Your task to perform on an android device: install app "Truecaller" Image 0: 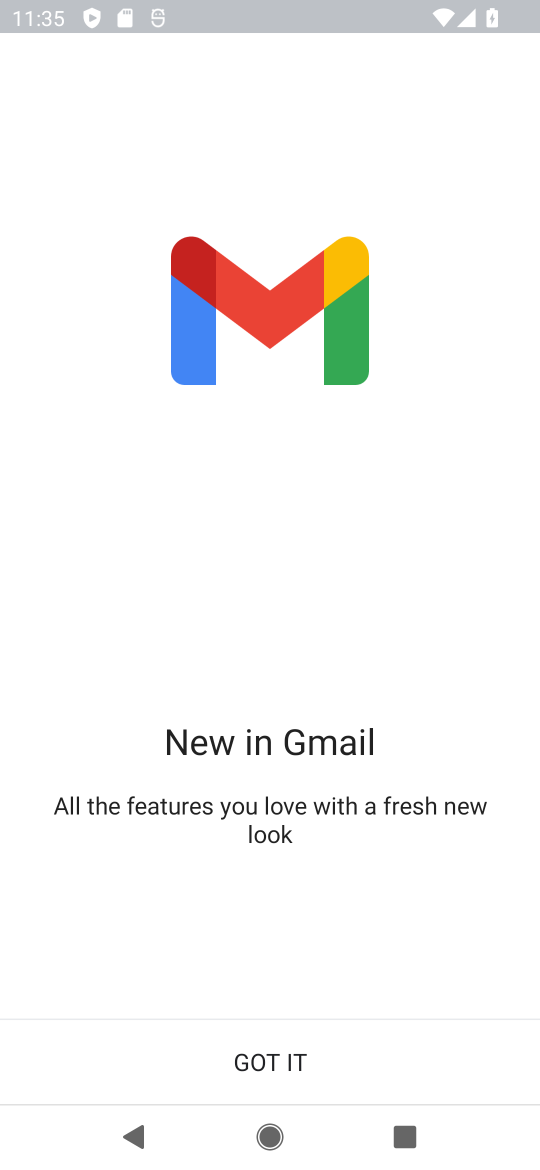
Step 0: click (222, 1069)
Your task to perform on an android device: install app "Truecaller" Image 1: 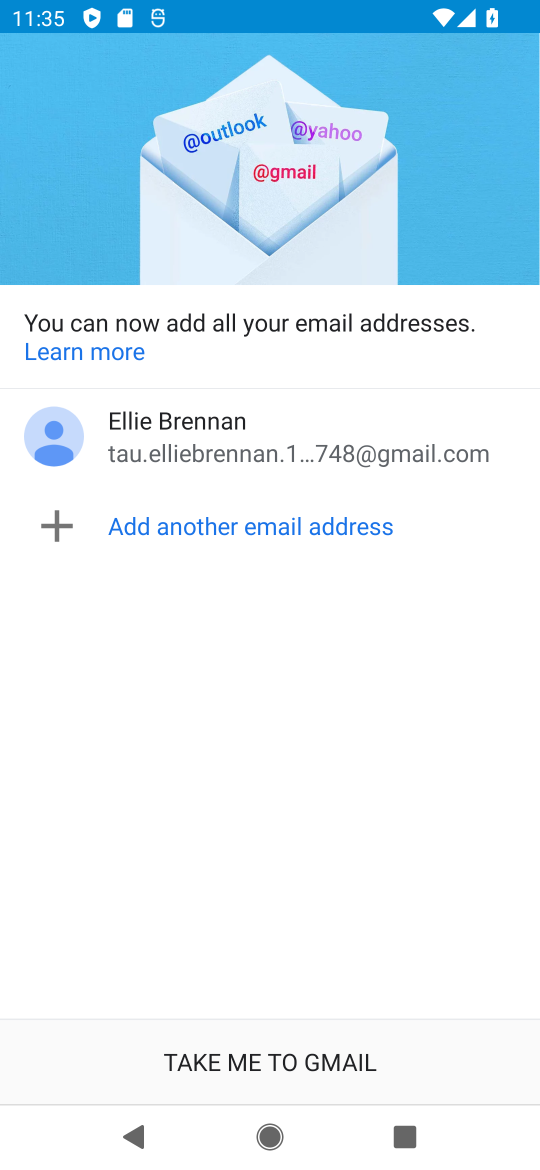
Step 1: press home button
Your task to perform on an android device: install app "Truecaller" Image 2: 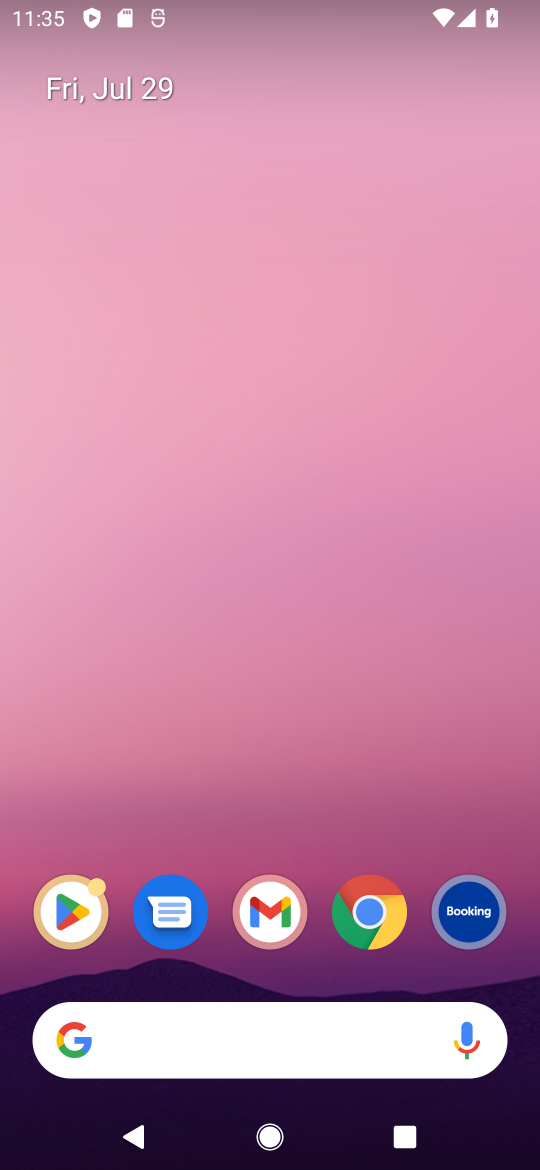
Step 2: click (67, 908)
Your task to perform on an android device: install app "Truecaller" Image 3: 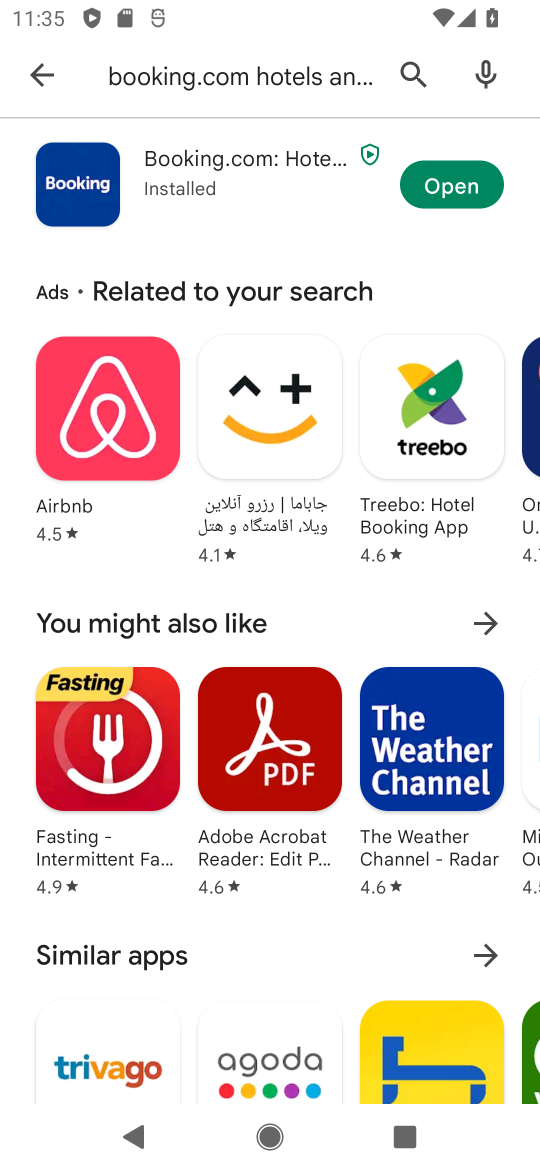
Step 3: click (416, 60)
Your task to perform on an android device: install app "Truecaller" Image 4: 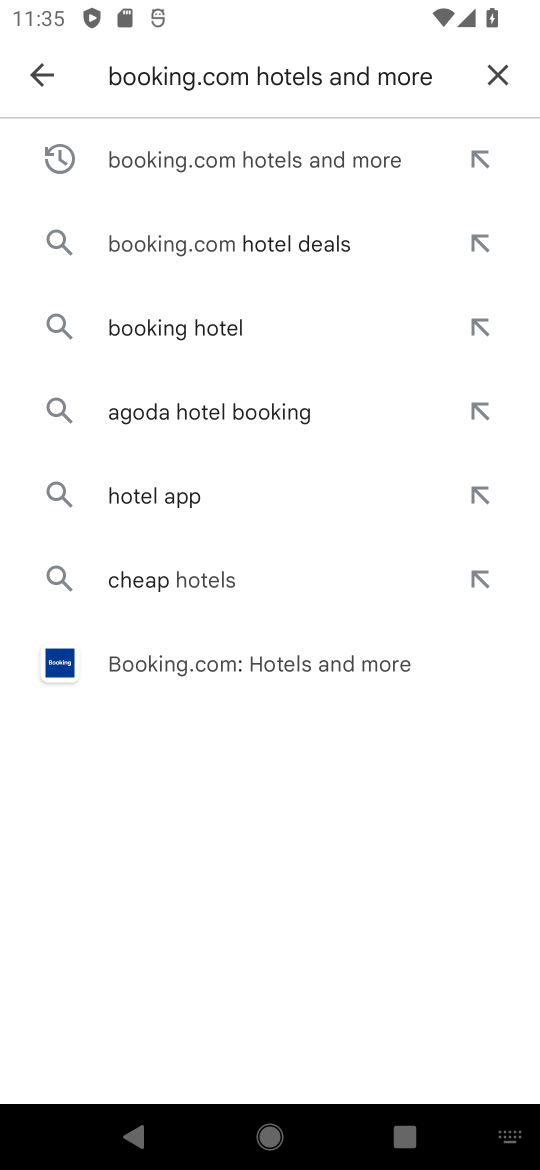
Step 4: click (513, 72)
Your task to perform on an android device: install app "Truecaller" Image 5: 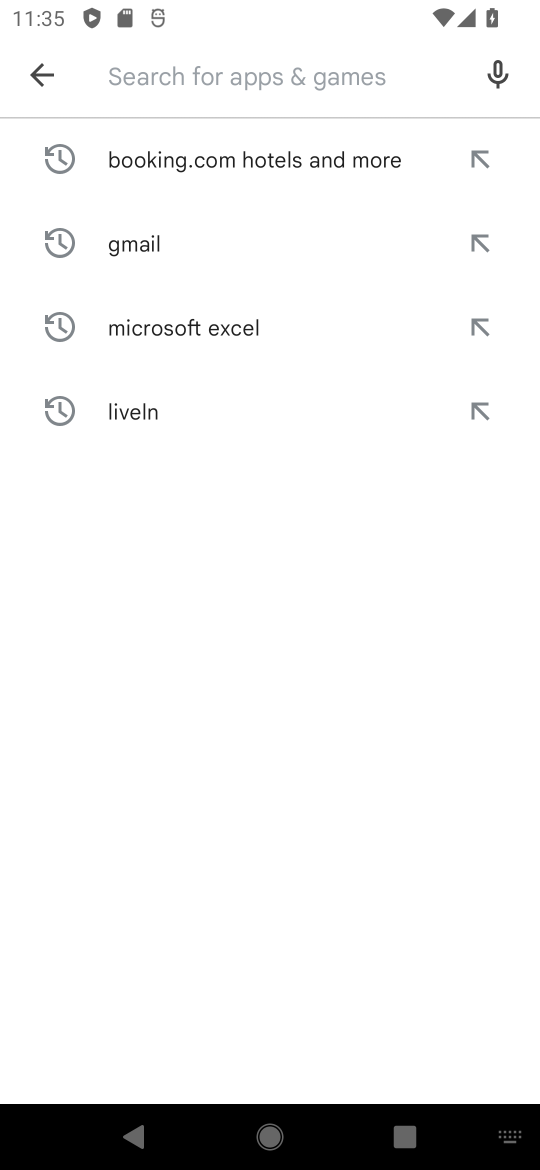
Step 5: click (255, 72)
Your task to perform on an android device: install app "Truecaller" Image 6: 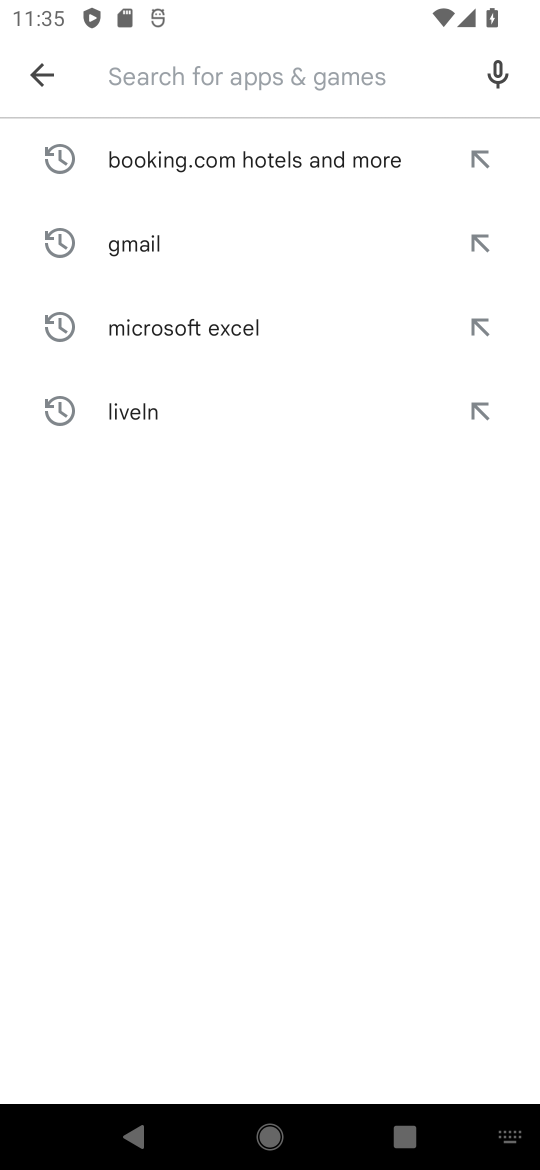
Step 6: type "true"
Your task to perform on an android device: install app "Truecaller" Image 7: 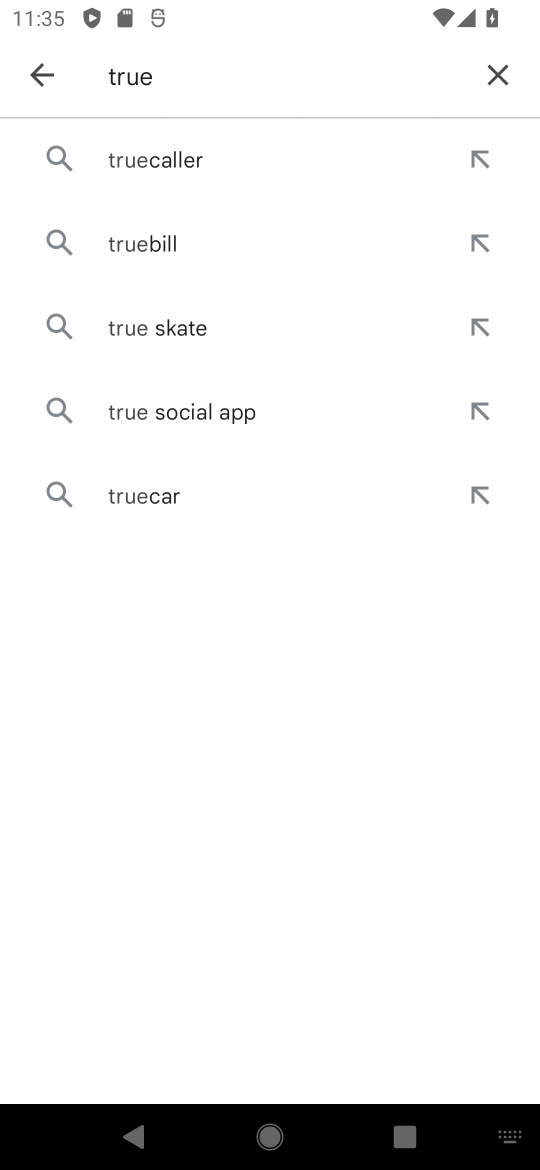
Step 7: click (196, 166)
Your task to perform on an android device: install app "Truecaller" Image 8: 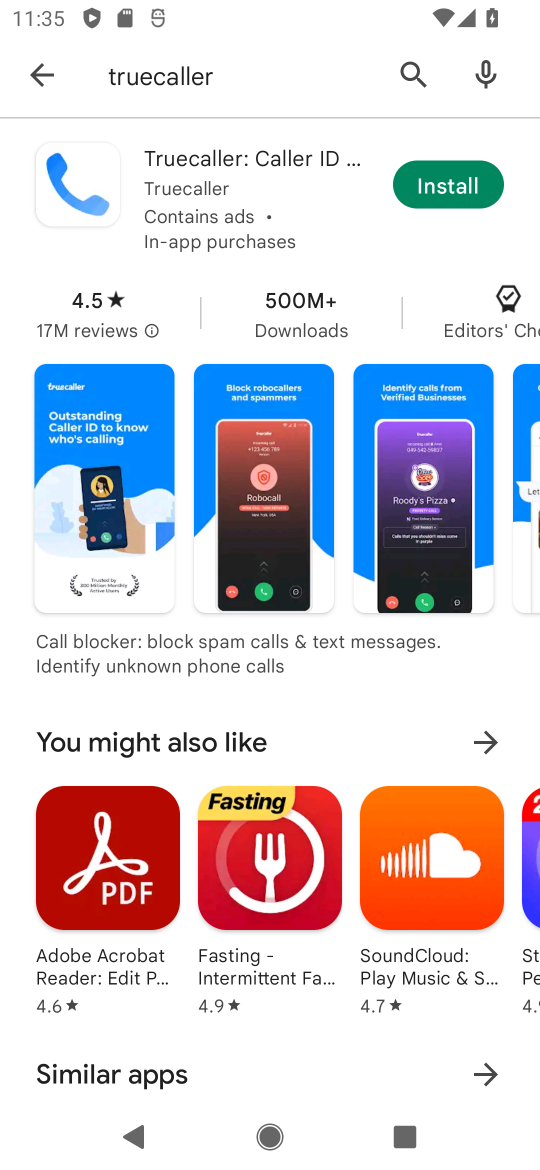
Step 8: click (455, 196)
Your task to perform on an android device: install app "Truecaller" Image 9: 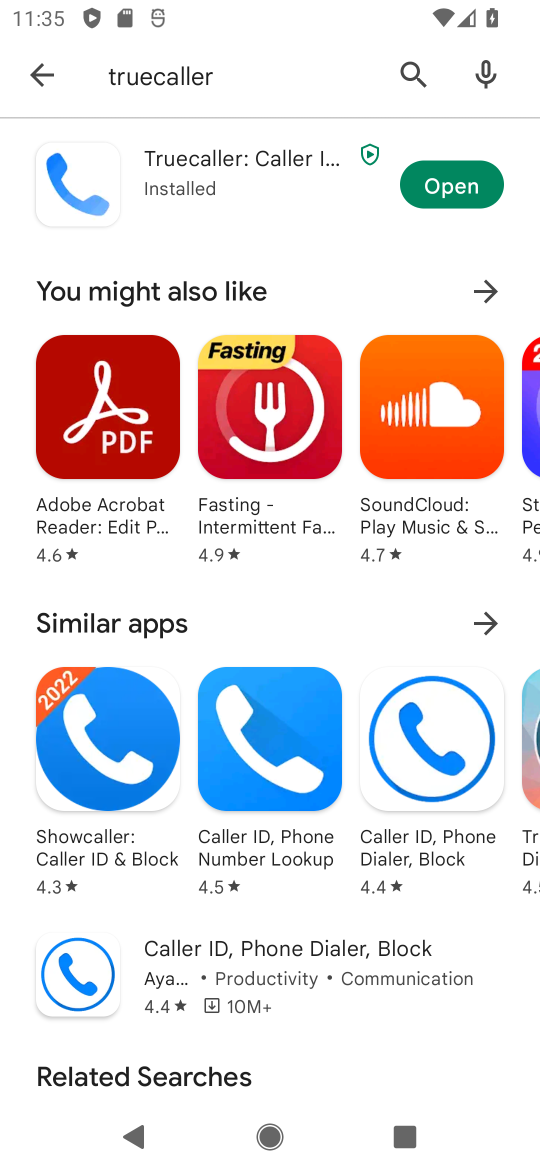
Step 9: task complete